Your task to perform on an android device: Search for pizza restaurants on Maps Image 0: 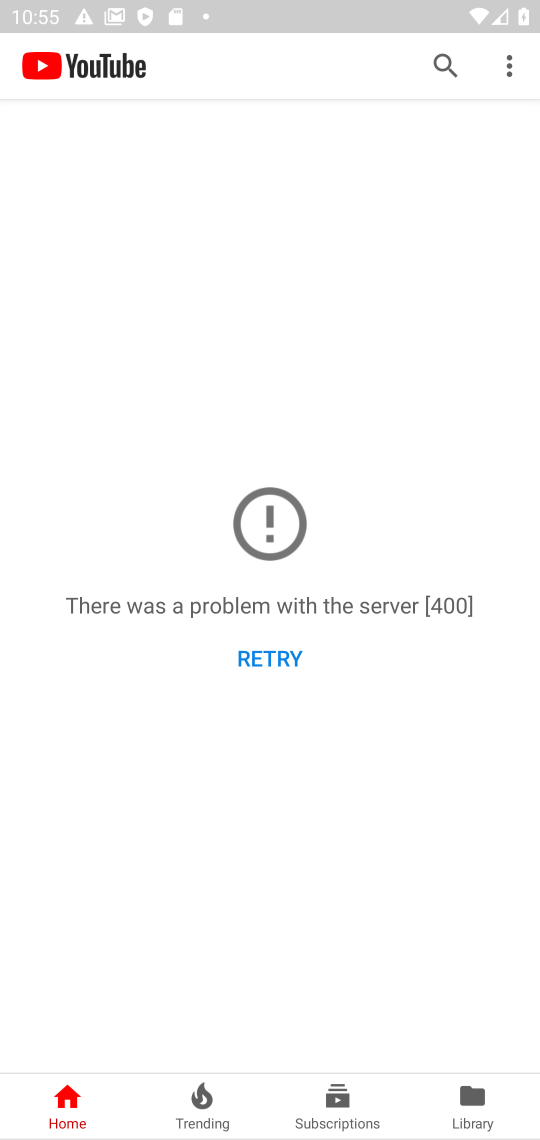
Step 0: press home button
Your task to perform on an android device: Search for pizza restaurants on Maps Image 1: 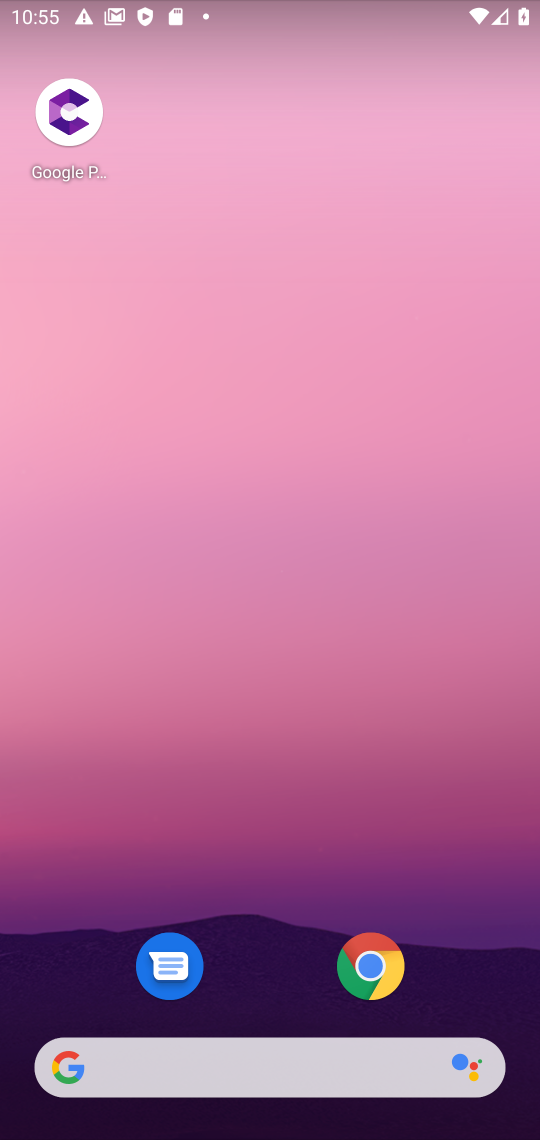
Step 1: drag from (480, 913) to (361, 317)
Your task to perform on an android device: Search for pizza restaurants on Maps Image 2: 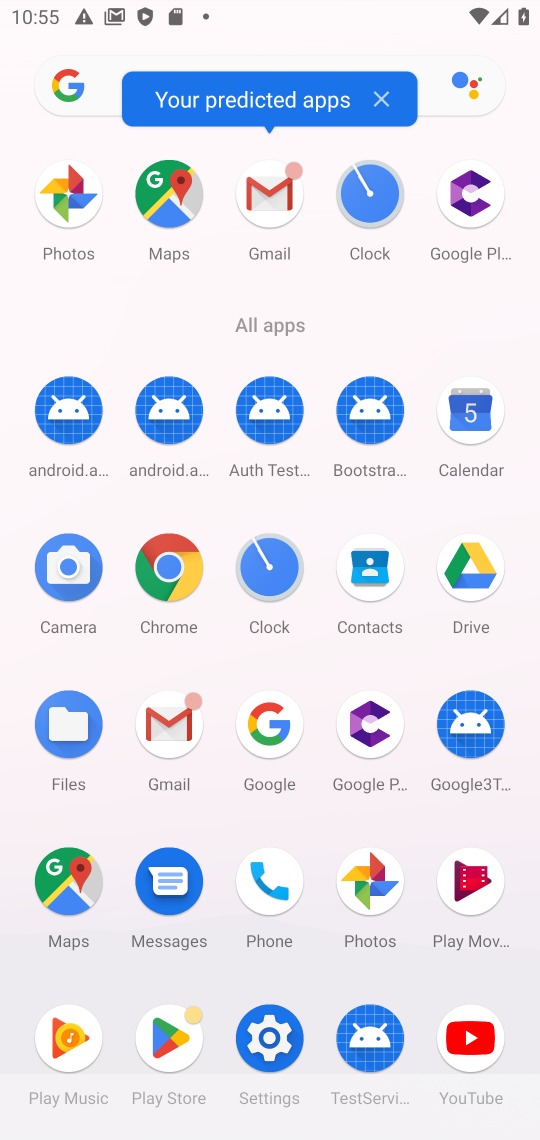
Step 2: click (180, 202)
Your task to perform on an android device: Search for pizza restaurants on Maps Image 3: 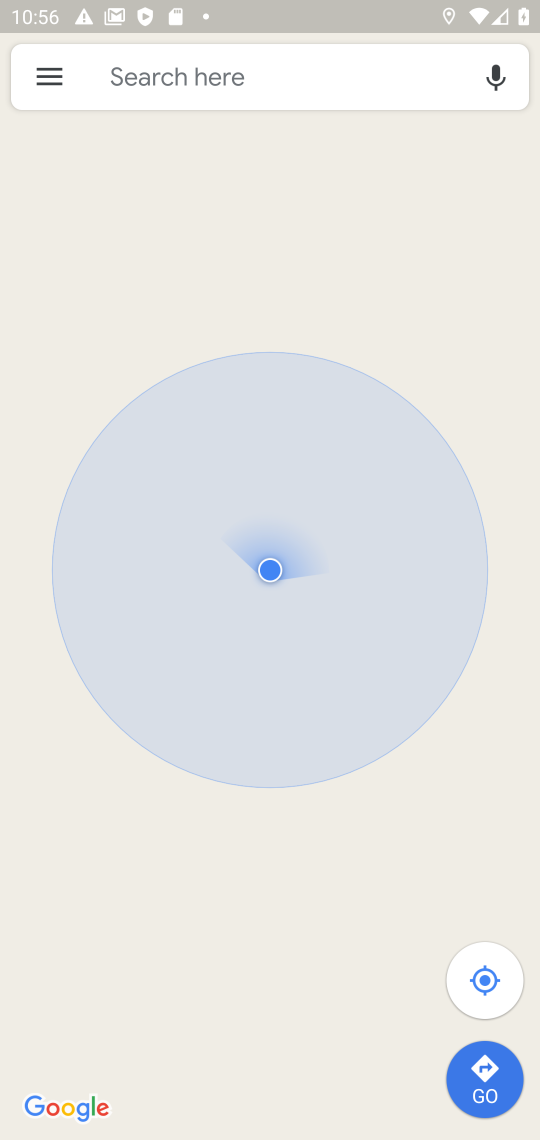
Step 3: click (57, 79)
Your task to perform on an android device: Search for pizza restaurants on Maps Image 4: 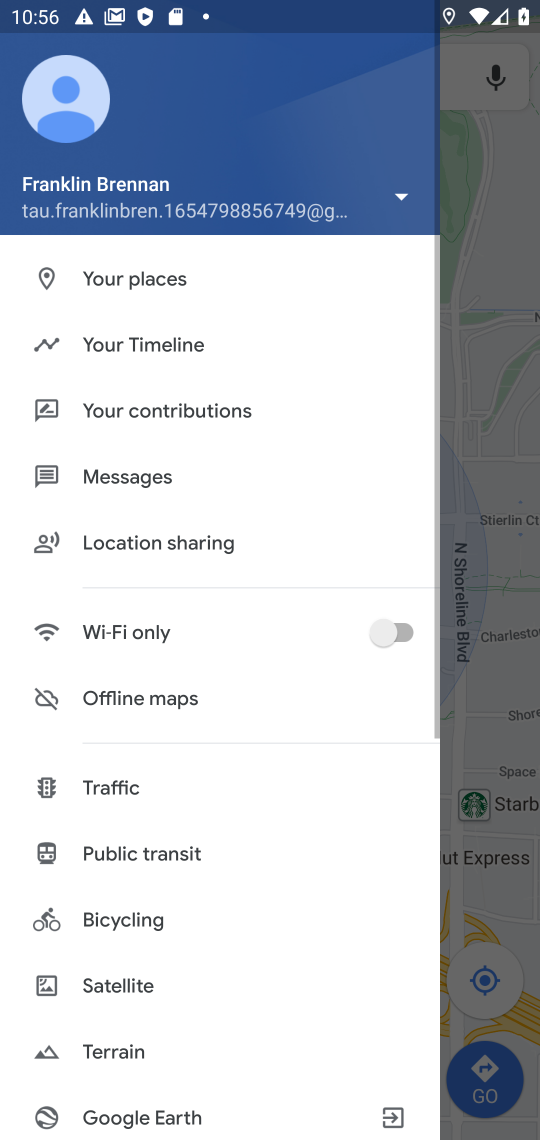
Step 4: click (336, 85)
Your task to perform on an android device: Search for pizza restaurants on Maps Image 5: 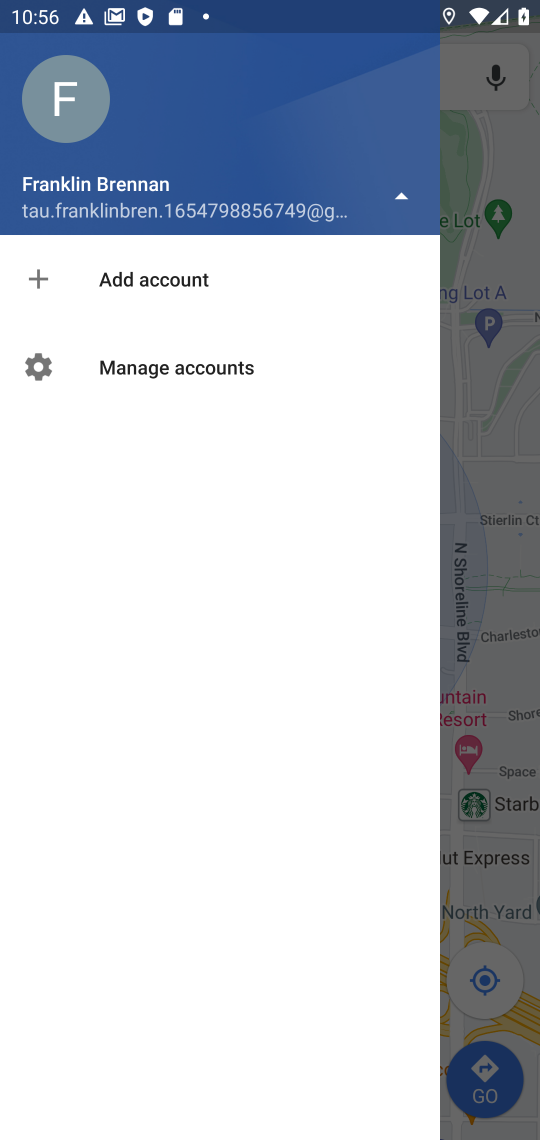
Step 5: click (526, 211)
Your task to perform on an android device: Search for pizza restaurants on Maps Image 6: 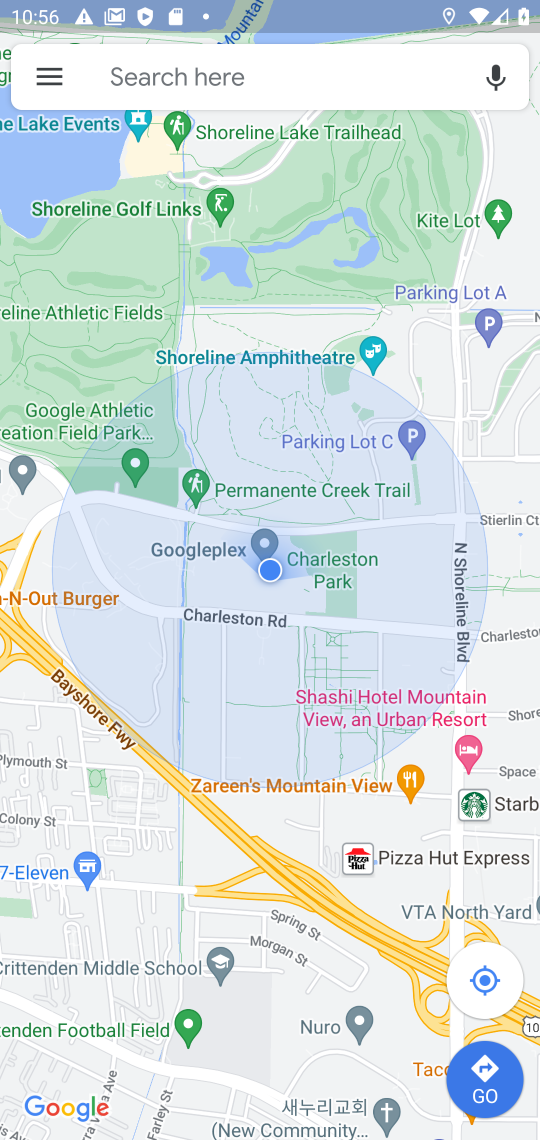
Step 6: click (383, 71)
Your task to perform on an android device: Search for pizza restaurants on Maps Image 7: 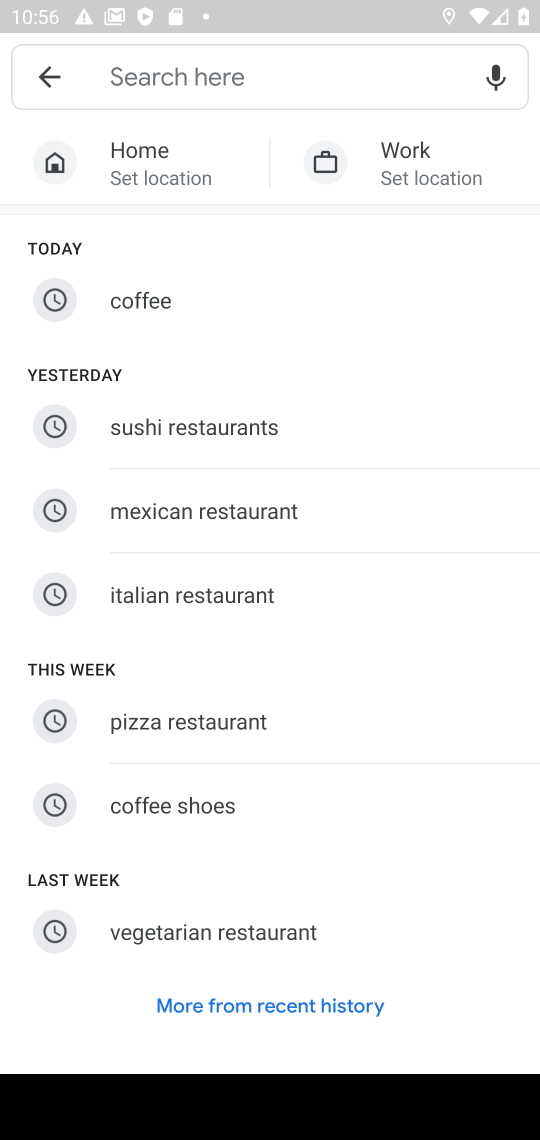
Step 7: click (278, 732)
Your task to perform on an android device: Search for pizza restaurants on Maps Image 8: 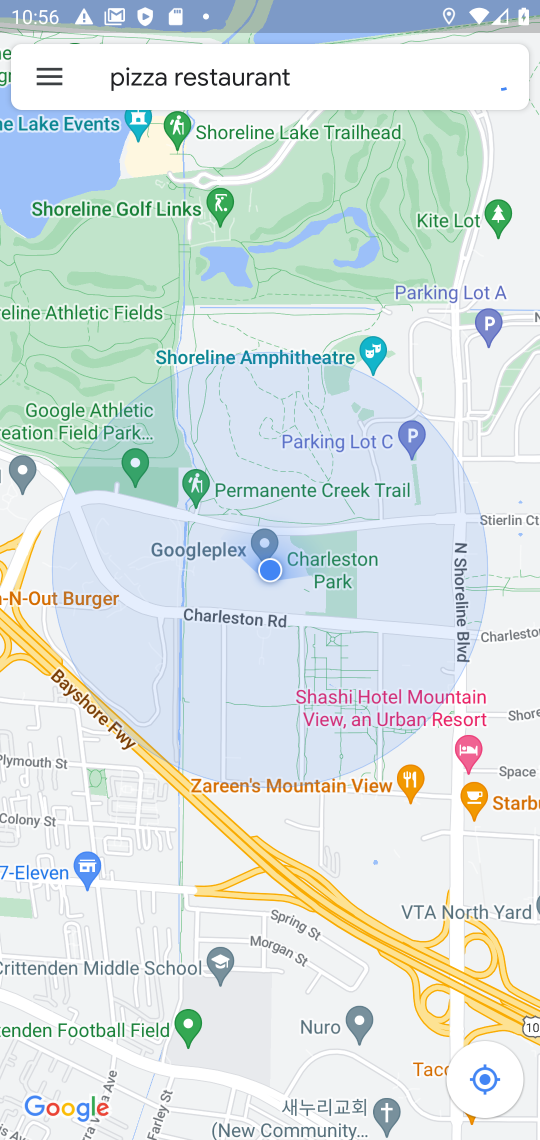
Step 8: task complete